Your task to perform on an android device: Add "corsair k70" to the cart on costco.com, then select checkout. Image 0: 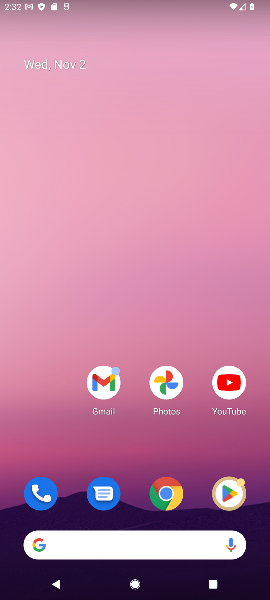
Step 0: click (164, 491)
Your task to perform on an android device: Add "corsair k70" to the cart on costco.com, then select checkout. Image 1: 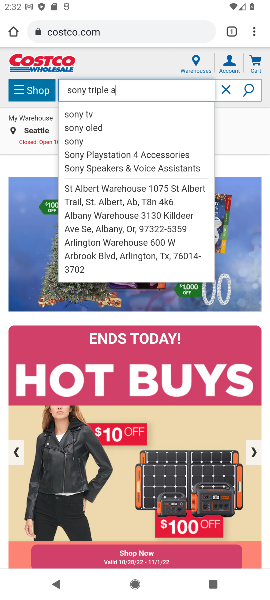
Step 1: click (223, 89)
Your task to perform on an android device: Add "corsair k70" to the cart on costco.com, then select checkout. Image 2: 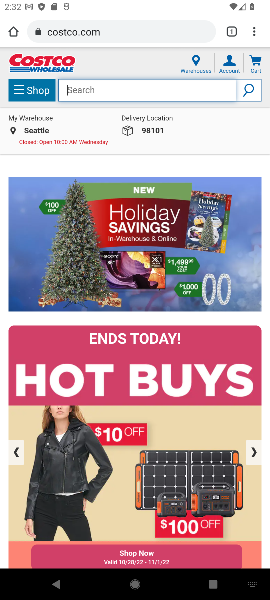
Step 2: type "corsair k70"
Your task to perform on an android device: Add "corsair k70" to the cart on costco.com, then select checkout. Image 3: 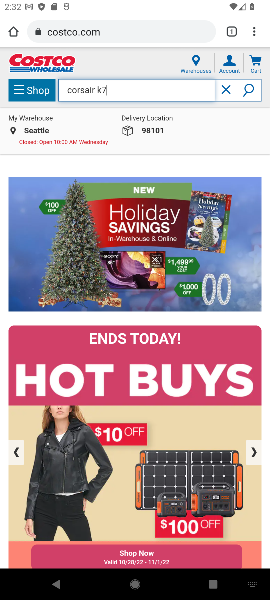
Step 3: press enter
Your task to perform on an android device: Add "corsair k70" to the cart on costco.com, then select checkout. Image 4: 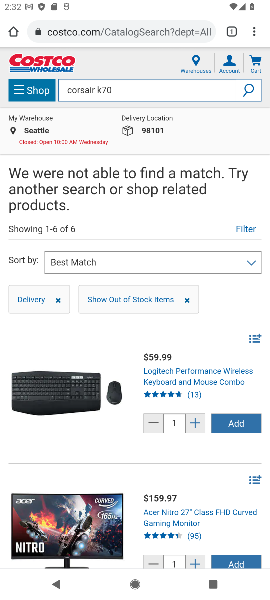
Step 4: task complete